Your task to perform on an android device: delete location history Image 0: 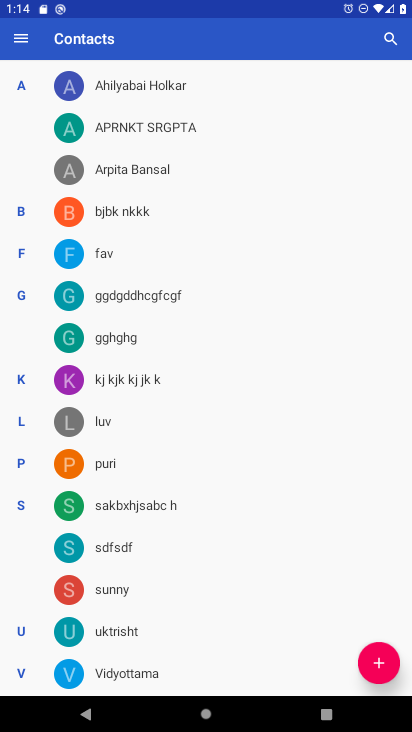
Step 0: press home button
Your task to perform on an android device: delete location history Image 1: 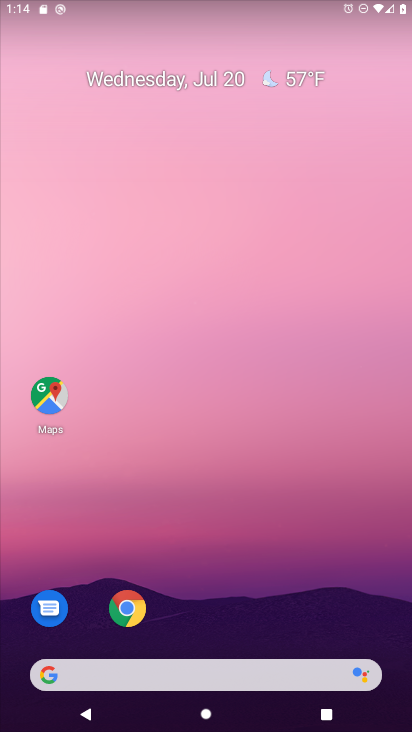
Step 1: drag from (122, 716) to (148, 416)
Your task to perform on an android device: delete location history Image 2: 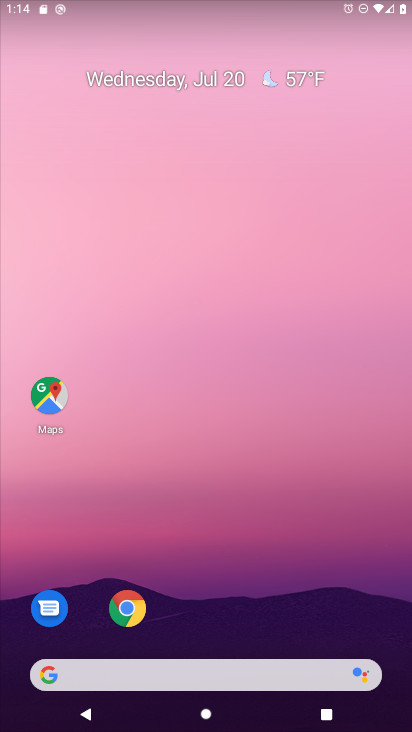
Step 2: click (58, 402)
Your task to perform on an android device: delete location history Image 3: 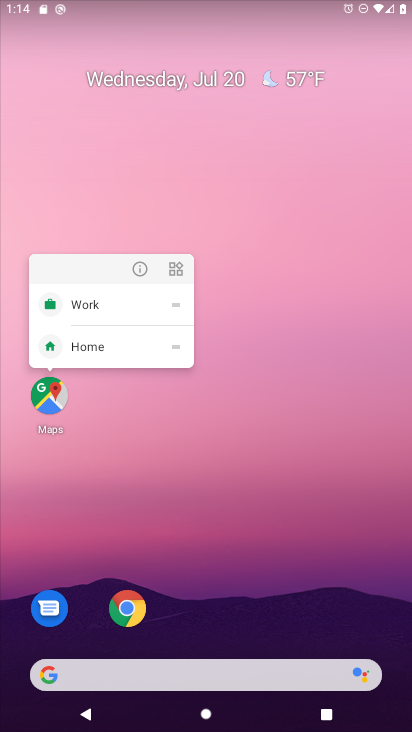
Step 3: click (54, 403)
Your task to perform on an android device: delete location history Image 4: 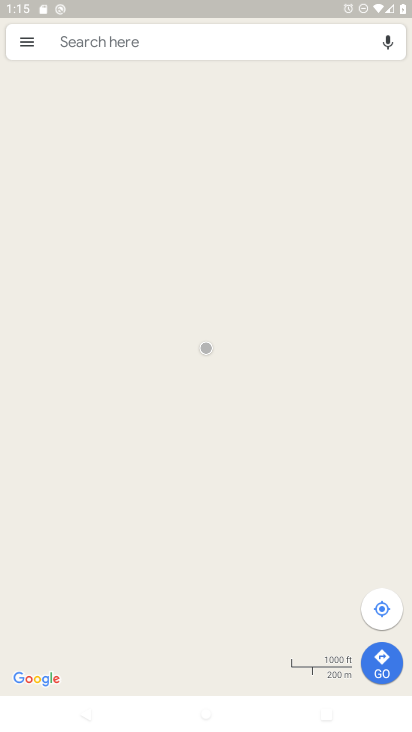
Step 4: click (26, 38)
Your task to perform on an android device: delete location history Image 5: 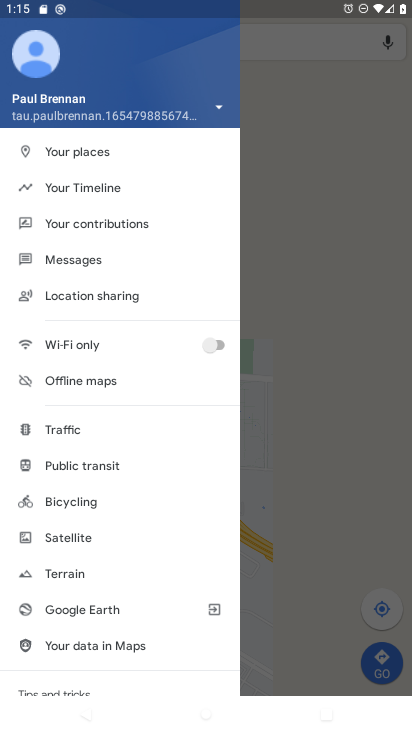
Step 5: click (90, 192)
Your task to perform on an android device: delete location history Image 6: 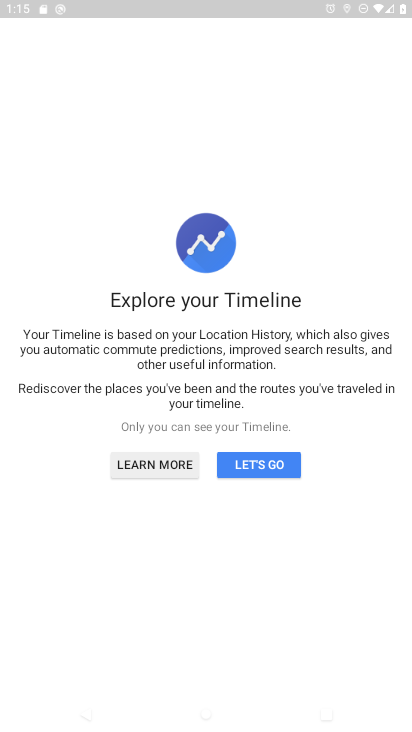
Step 6: click (262, 461)
Your task to perform on an android device: delete location history Image 7: 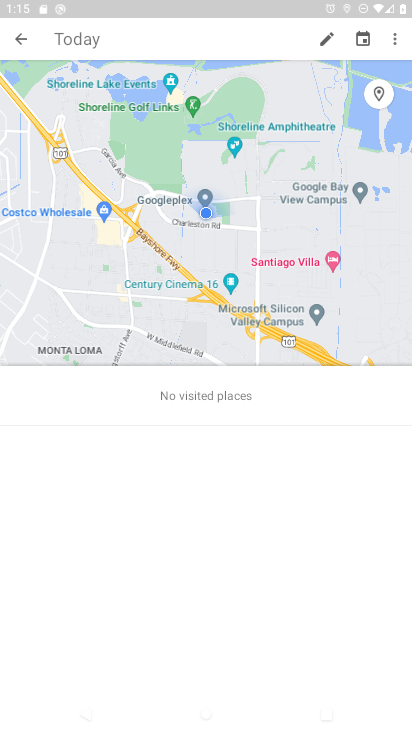
Step 7: click (396, 33)
Your task to perform on an android device: delete location history Image 8: 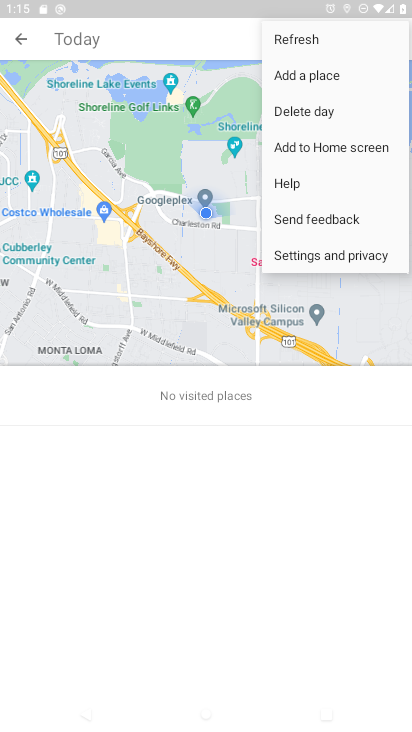
Step 8: click (317, 259)
Your task to perform on an android device: delete location history Image 9: 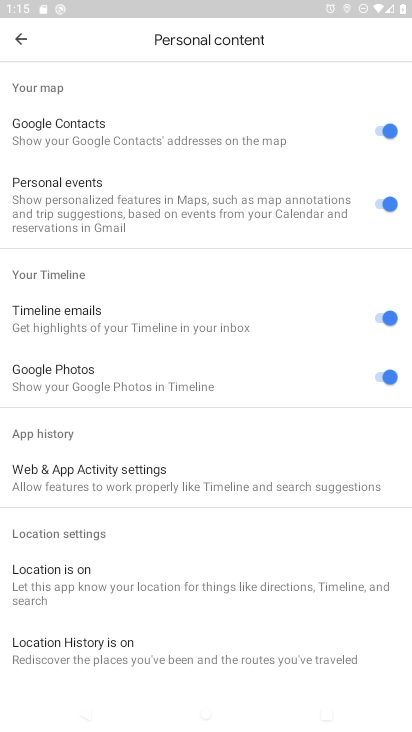
Step 9: drag from (194, 557) to (272, 207)
Your task to perform on an android device: delete location history Image 10: 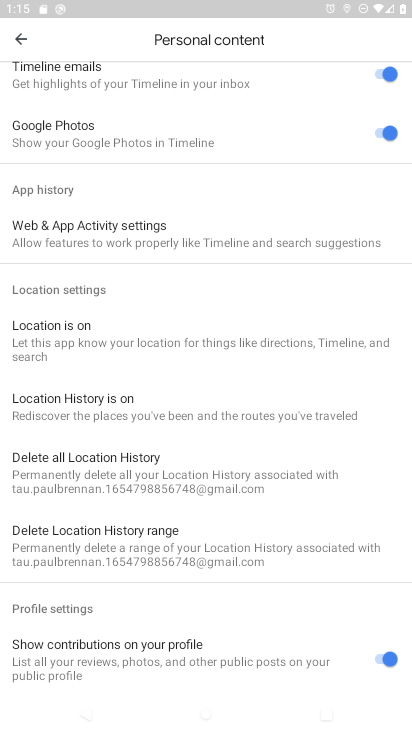
Step 10: click (103, 472)
Your task to perform on an android device: delete location history Image 11: 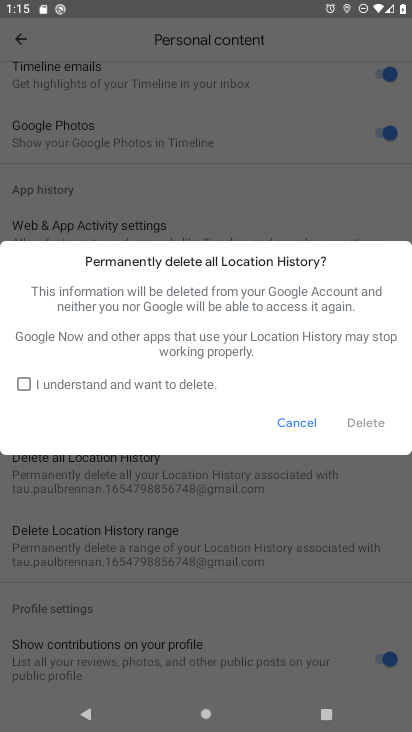
Step 11: click (41, 387)
Your task to perform on an android device: delete location history Image 12: 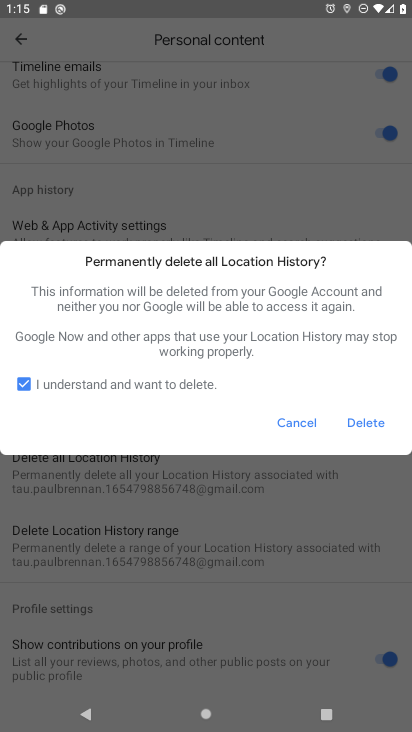
Step 12: click (360, 423)
Your task to perform on an android device: delete location history Image 13: 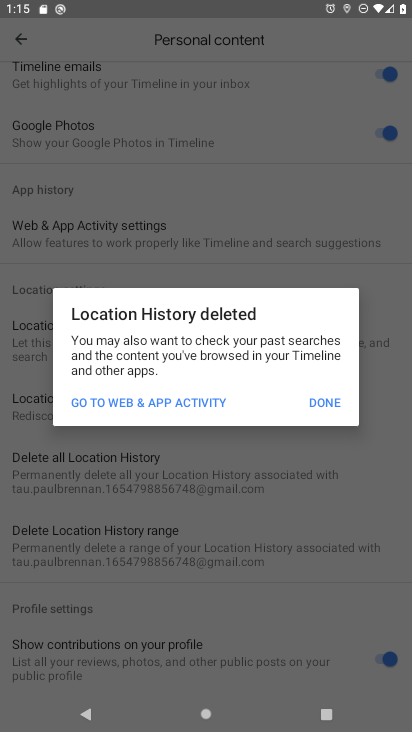
Step 13: click (330, 408)
Your task to perform on an android device: delete location history Image 14: 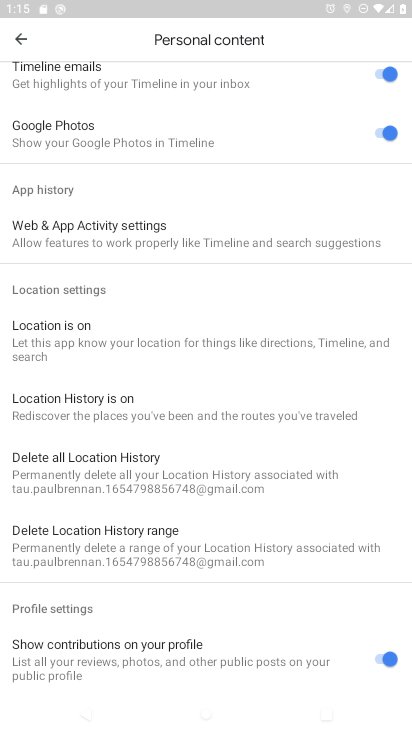
Step 14: task complete